Your task to perform on an android device: turn off improve location accuracy Image 0: 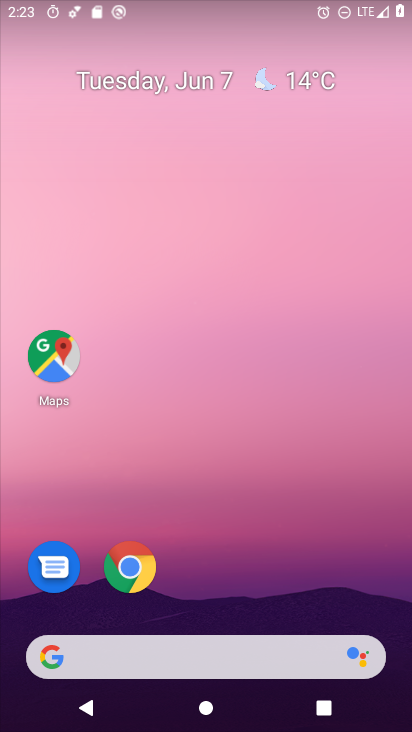
Step 0: drag from (338, 607) to (408, 79)
Your task to perform on an android device: turn off improve location accuracy Image 1: 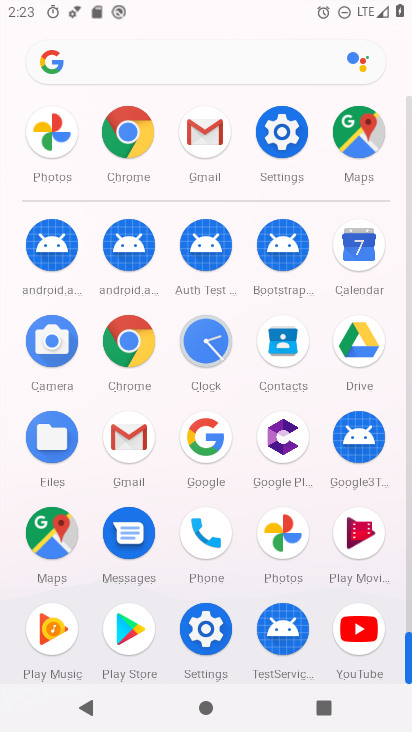
Step 1: click (279, 135)
Your task to perform on an android device: turn off improve location accuracy Image 2: 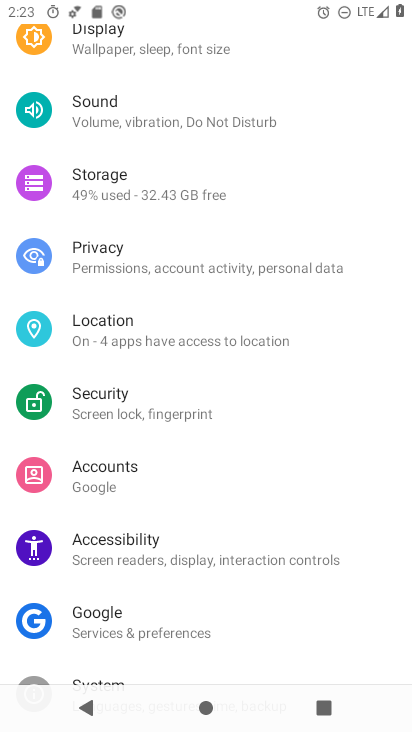
Step 2: click (134, 349)
Your task to perform on an android device: turn off improve location accuracy Image 3: 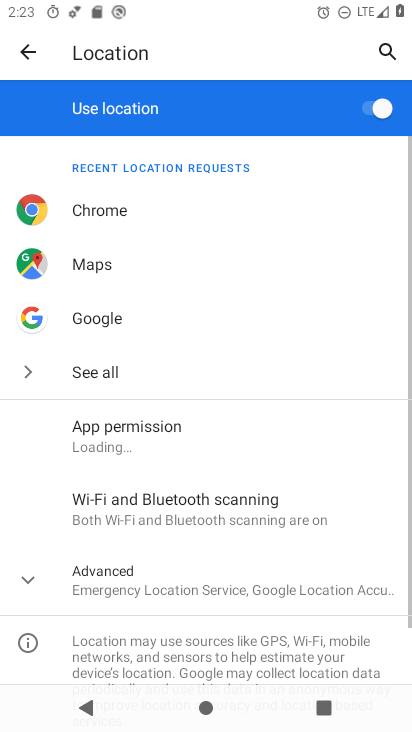
Step 3: drag from (186, 578) to (276, 196)
Your task to perform on an android device: turn off improve location accuracy Image 4: 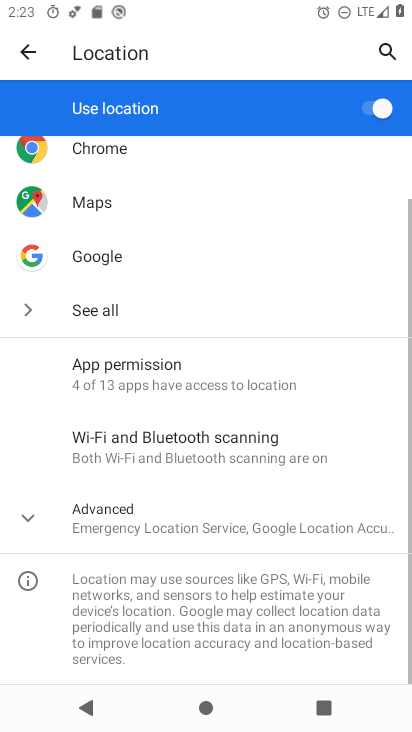
Step 4: click (144, 534)
Your task to perform on an android device: turn off improve location accuracy Image 5: 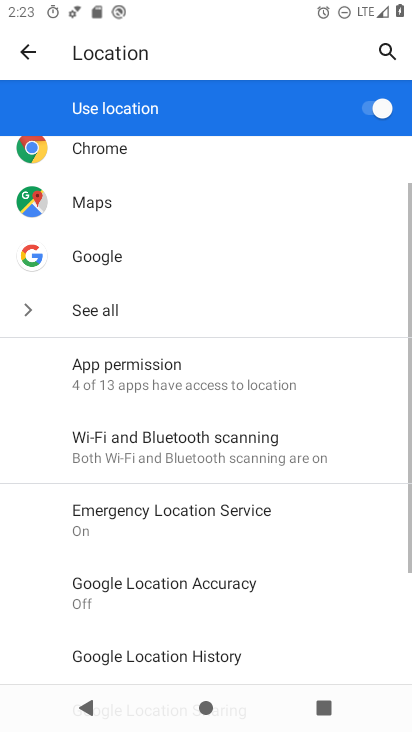
Step 5: drag from (167, 596) to (254, 255)
Your task to perform on an android device: turn off improve location accuracy Image 6: 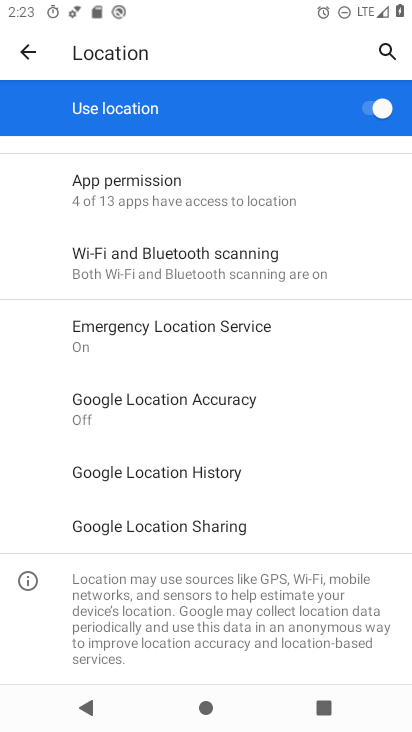
Step 6: click (213, 414)
Your task to perform on an android device: turn off improve location accuracy Image 7: 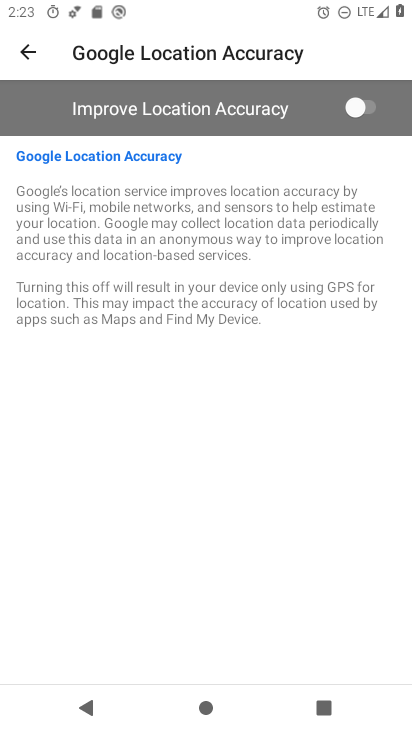
Step 7: task complete